Your task to perform on an android device: turn vacation reply on in the gmail app Image 0: 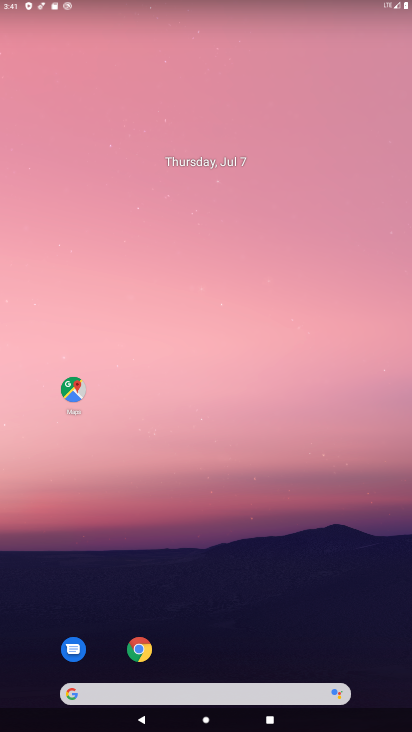
Step 0: drag from (246, 582) to (277, 160)
Your task to perform on an android device: turn vacation reply on in the gmail app Image 1: 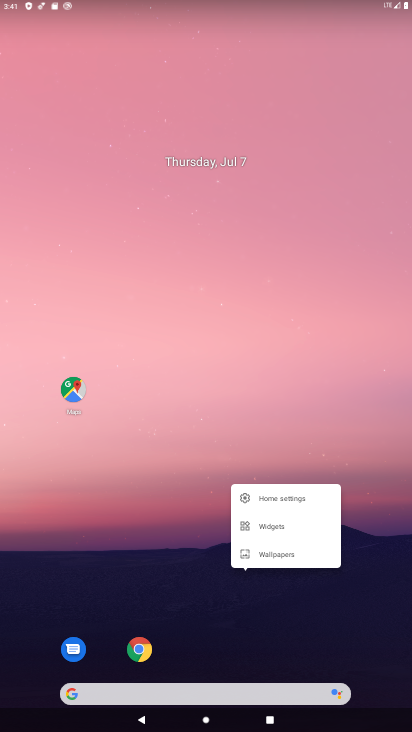
Step 1: click (183, 487)
Your task to perform on an android device: turn vacation reply on in the gmail app Image 2: 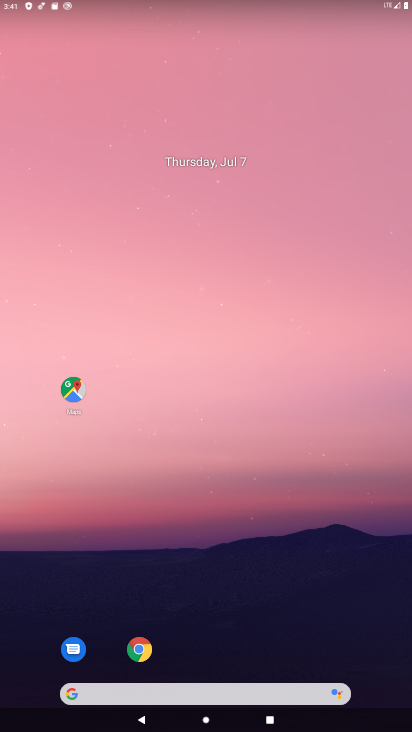
Step 2: drag from (230, 656) to (262, 343)
Your task to perform on an android device: turn vacation reply on in the gmail app Image 3: 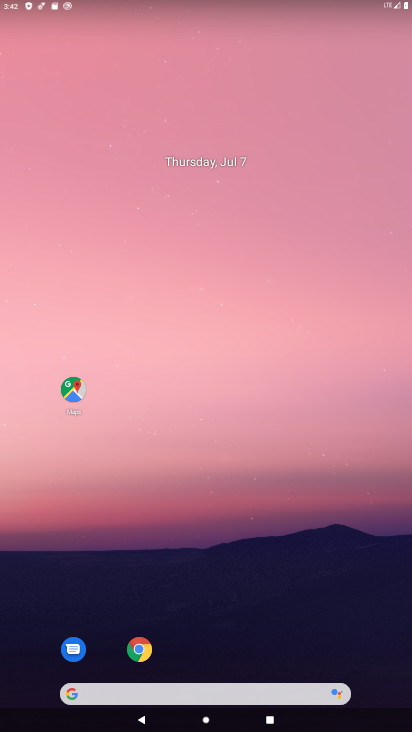
Step 3: drag from (228, 586) to (267, 211)
Your task to perform on an android device: turn vacation reply on in the gmail app Image 4: 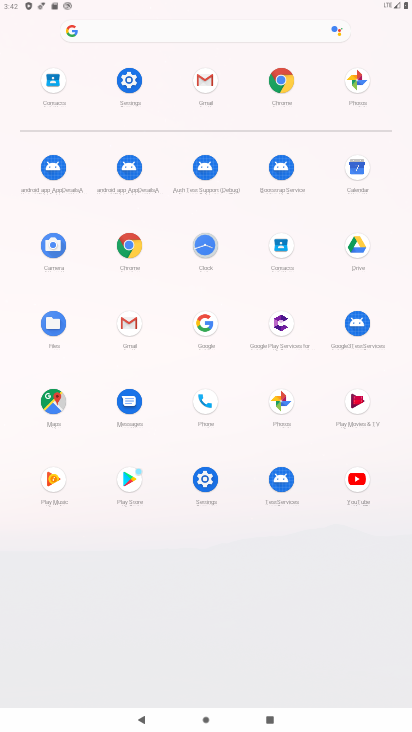
Step 4: click (196, 94)
Your task to perform on an android device: turn vacation reply on in the gmail app Image 5: 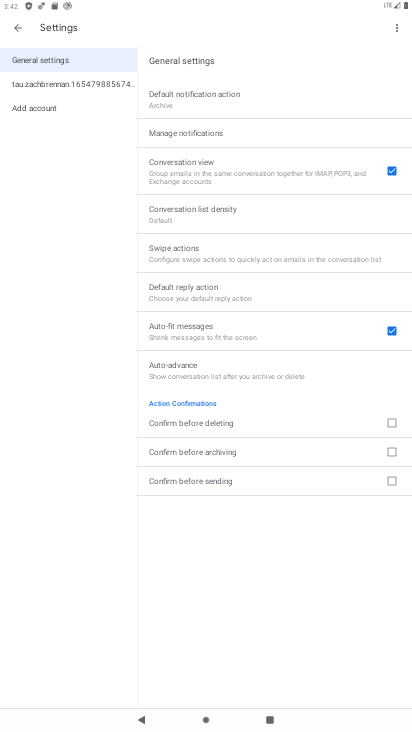
Step 5: click (76, 84)
Your task to perform on an android device: turn vacation reply on in the gmail app Image 6: 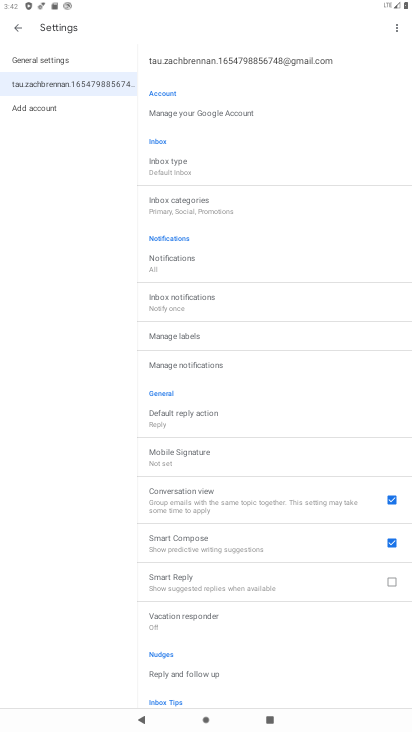
Step 6: click (203, 617)
Your task to perform on an android device: turn vacation reply on in the gmail app Image 7: 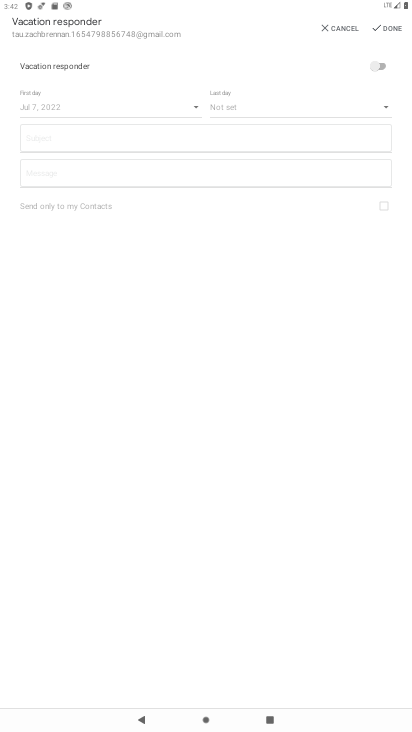
Step 7: click (381, 63)
Your task to perform on an android device: turn vacation reply on in the gmail app Image 8: 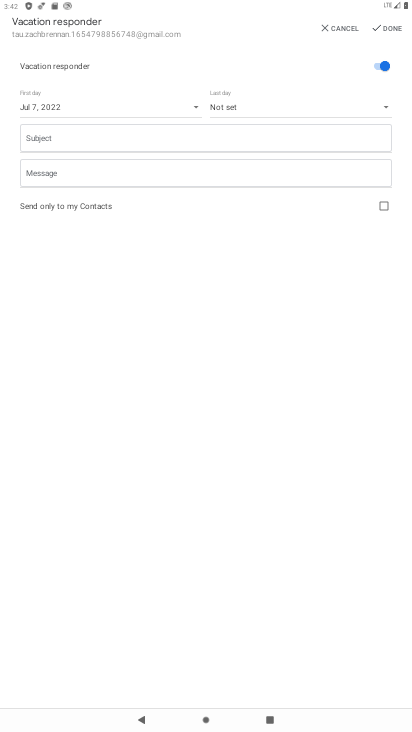
Step 8: task complete